Your task to perform on an android device: Go to privacy settings Image 0: 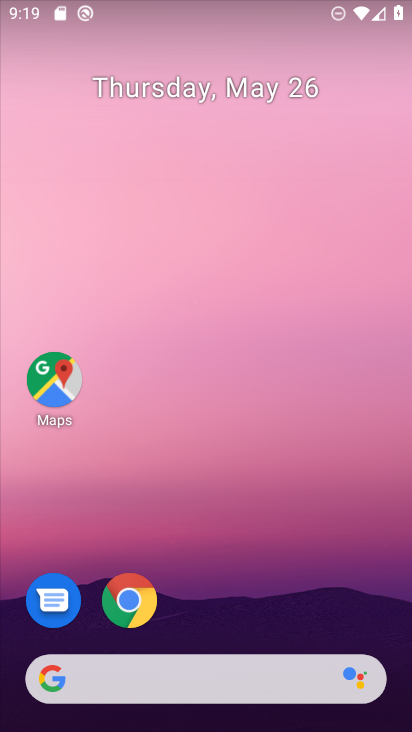
Step 0: drag from (189, 661) to (206, 315)
Your task to perform on an android device: Go to privacy settings Image 1: 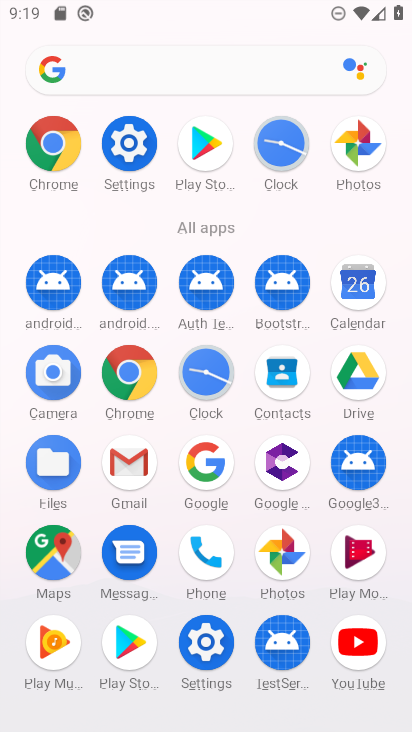
Step 1: click (127, 145)
Your task to perform on an android device: Go to privacy settings Image 2: 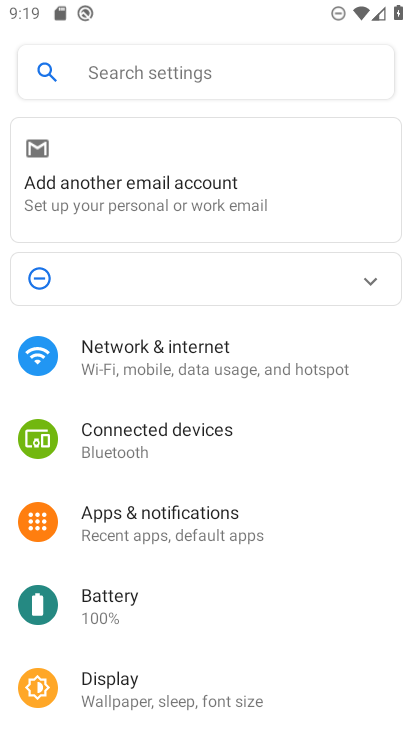
Step 2: drag from (174, 686) to (209, 281)
Your task to perform on an android device: Go to privacy settings Image 3: 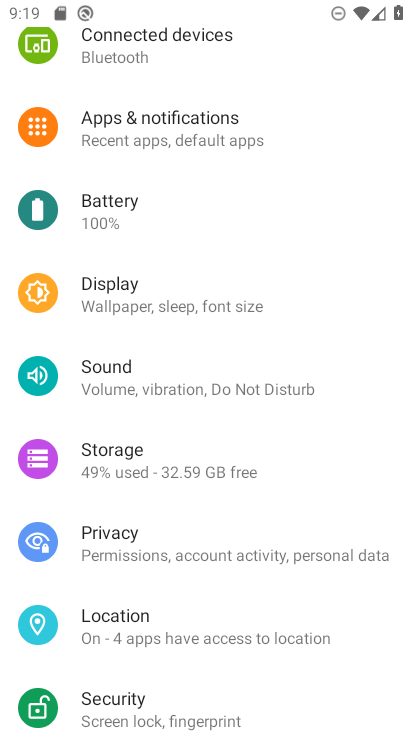
Step 3: click (100, 541)
Your task to perform on an android device: Go to privacy settings Image 4: 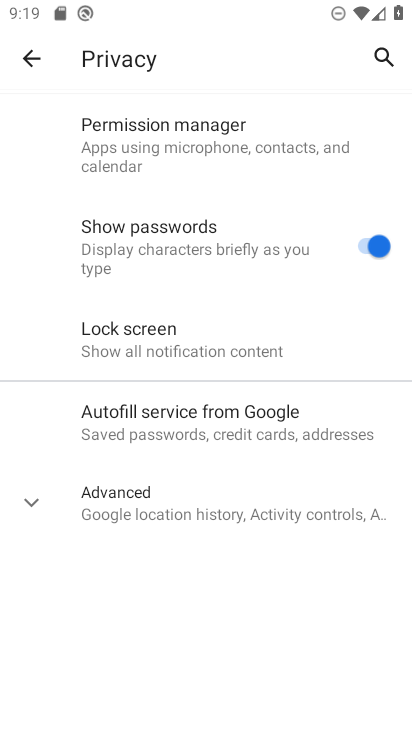
Step 4: click (108, 514)
Your task to perform on an android device: Go to privacy settings Image 5: 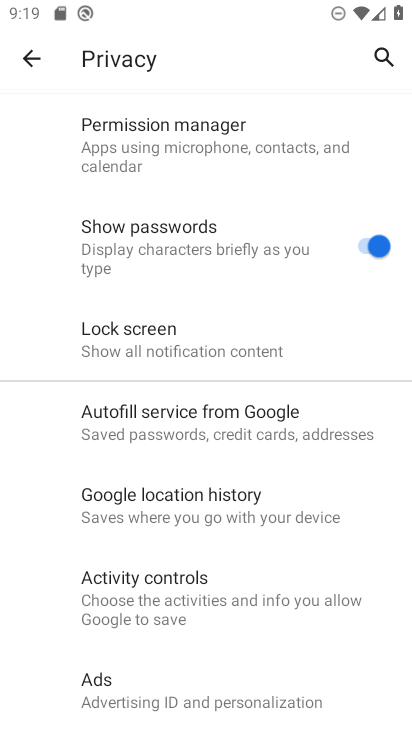
Step 5: task complete